Your task to perform on an android device: turn on airplane mode Image 0: 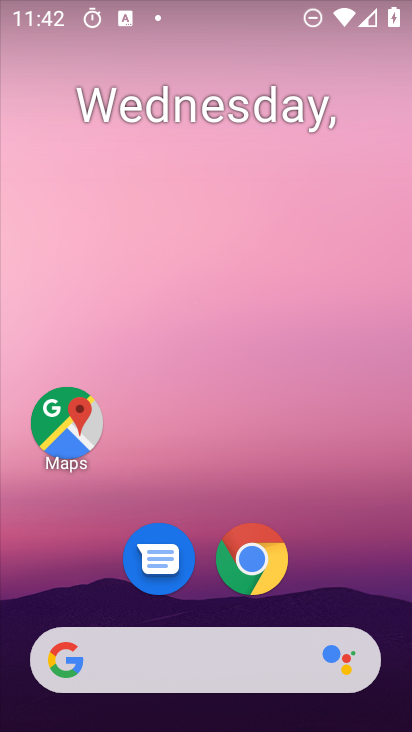
Step 0: drag from (235, 585) to (220, 14)
Your task to perform on an android device: turn on airplane mode Image 1: 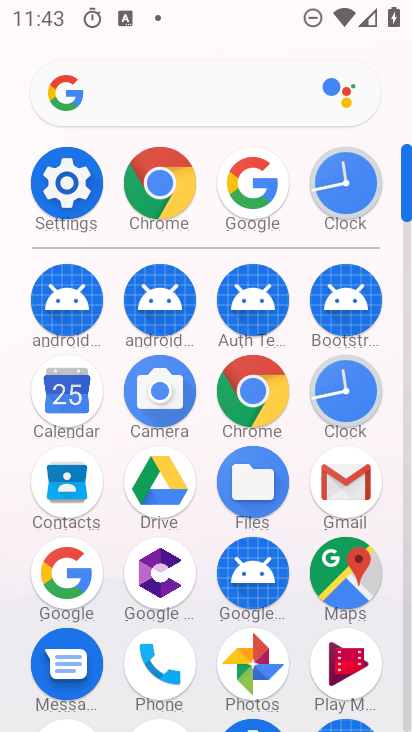
Step 1: click (72, 211)
Your task to perform on an android device: turn on airplane mode Image 2: 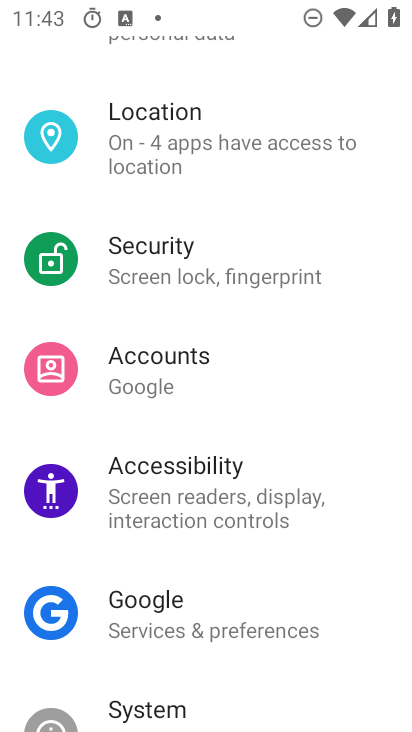
Step 2: drag from (189, 323) to (186, 682)
Your task to perform on an android device: turn on airplane mode Image 3: 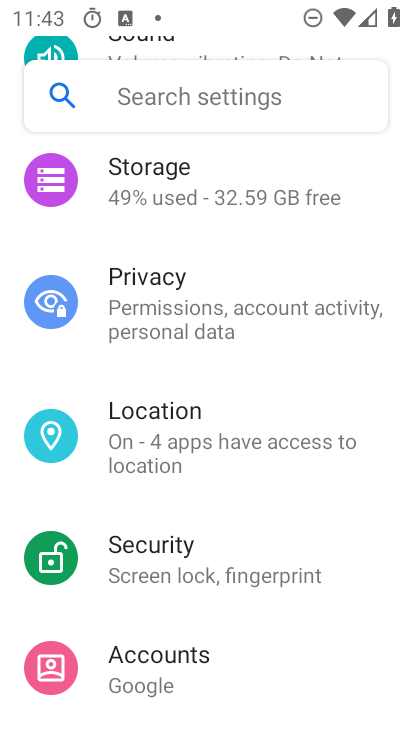
Step 3: drag from (194, 366) to (187, 728)
Your task to perform on an android device: turn on airplane mode Image 4: 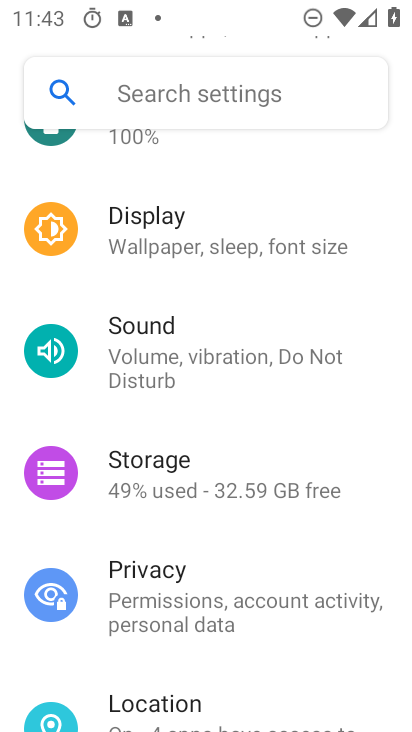
Step 4: drag from (239, 269) to (180, 728)
Your task to perform on an android device: turn on airplane mode Image 5: 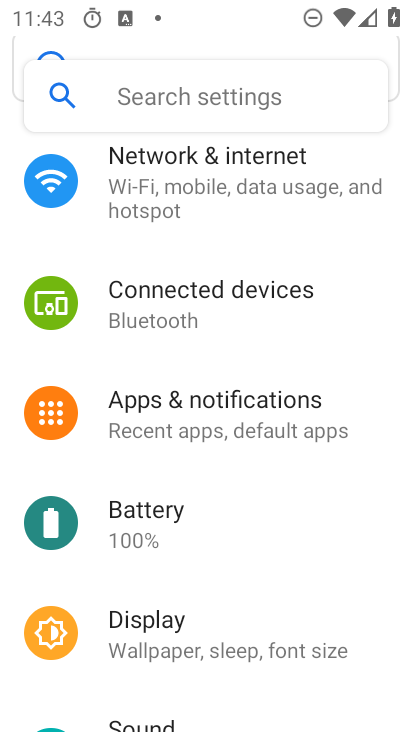
Step 5: drag from (198, 393) to (198, 722)
Your task to perform on an android device: turn on airplane mode Image 6: 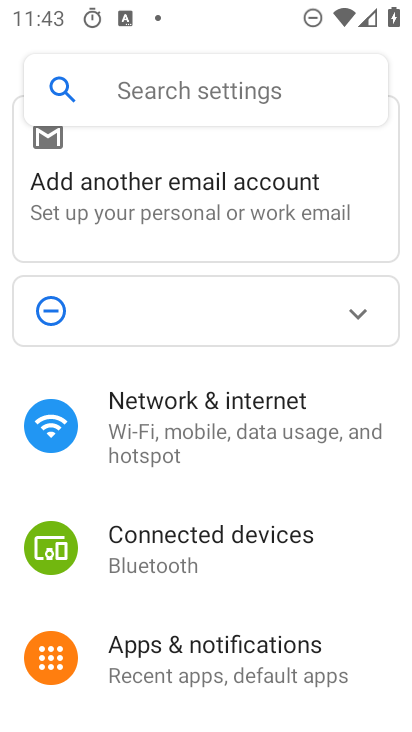
Step 6: click (257, 429)
Your task to perform on an android device: turn on airplane mode Image 7: 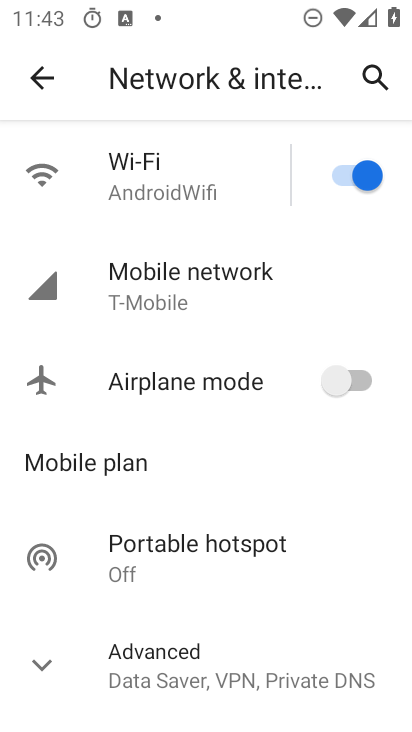
Step 7: click (275, 382)
Your task to perform on an android device: turn on airplane mode Image 8: 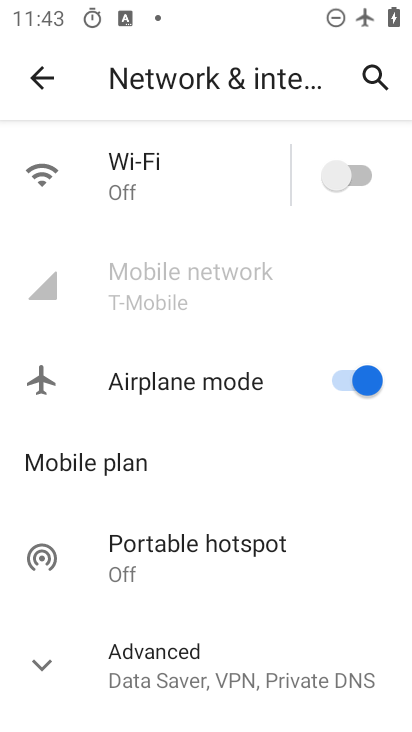
Step 8: task complete